Your task to perform on an android device: Go to Google Image 0: 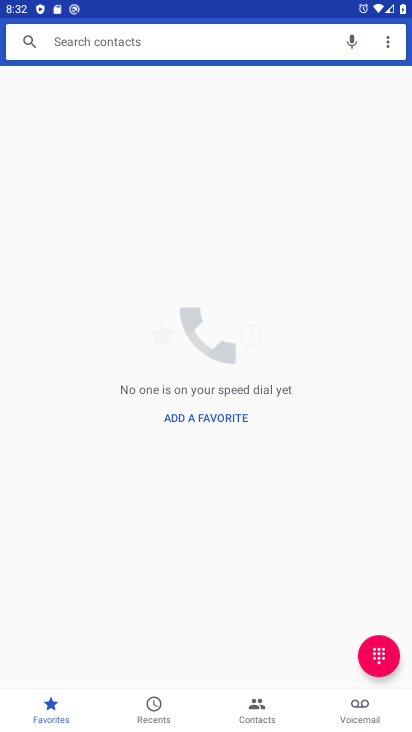
Step 0: press home button
Your task to perform on an android device: Go to Google Image 1: 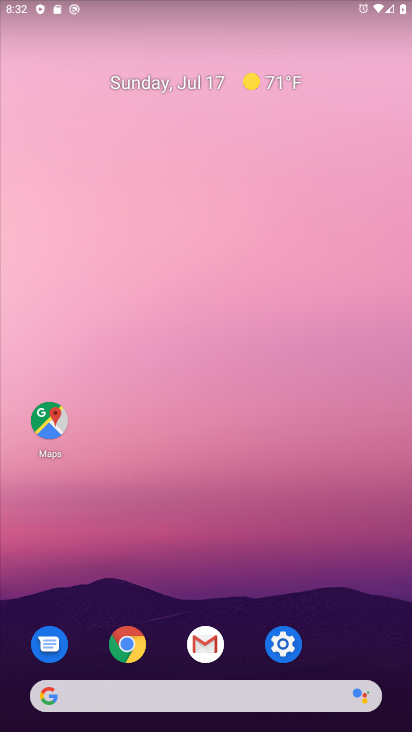
Step 1: click (90, 699)
Your task to perform on an android device: Go to Google Image 2: 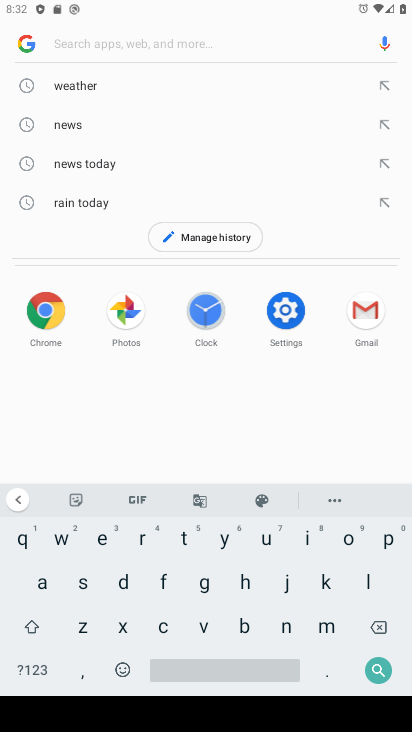
Step 2: click (26, 45)
Your task to perform on an android device: Go to Google Image 3: 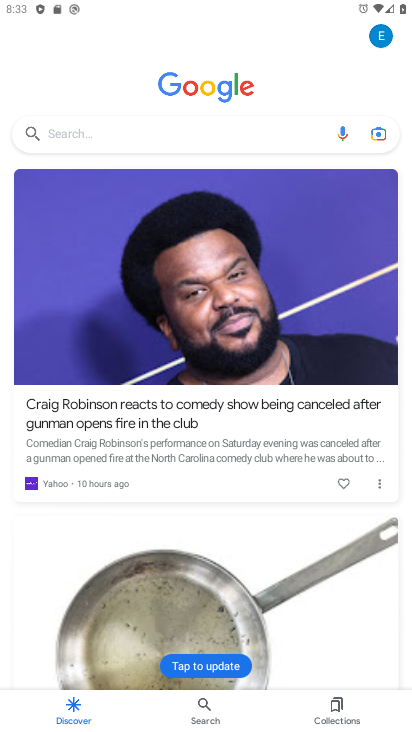
Step 3: task complete